Your task to perform on an android device: Open Chrome and go to the settings page Image 0: 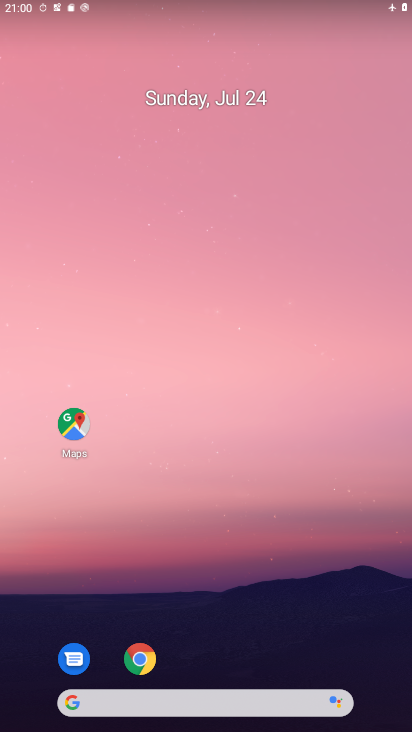
Step 0: drag from (221, 730) to (247, 97)
Your task to perform on an android device: Open Chrome and go to the settings page Image 1: 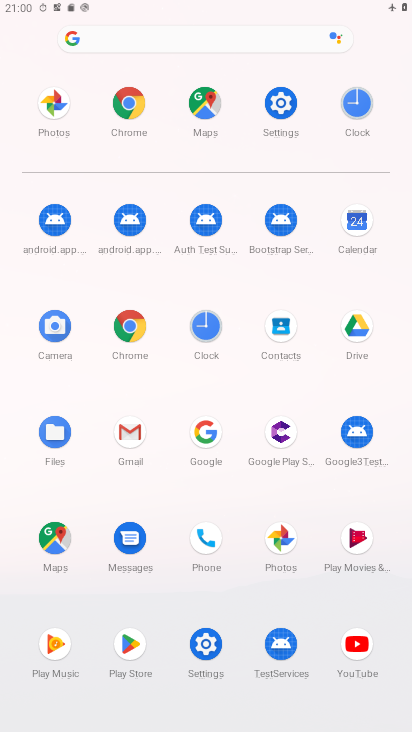
Step 1: click (129, 106)
Your task to perform on an android device: Open Chrome and go to the settings page Image 2: 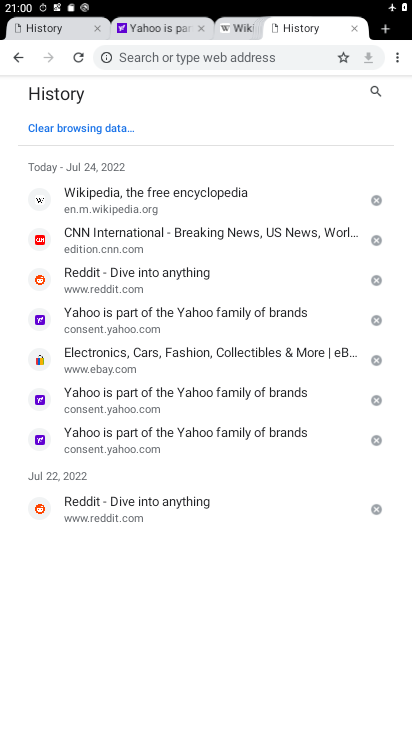
Step 2: click (396, 57)
Your task to perform on an android device: Open Chrome and go to the settings page Image 3: 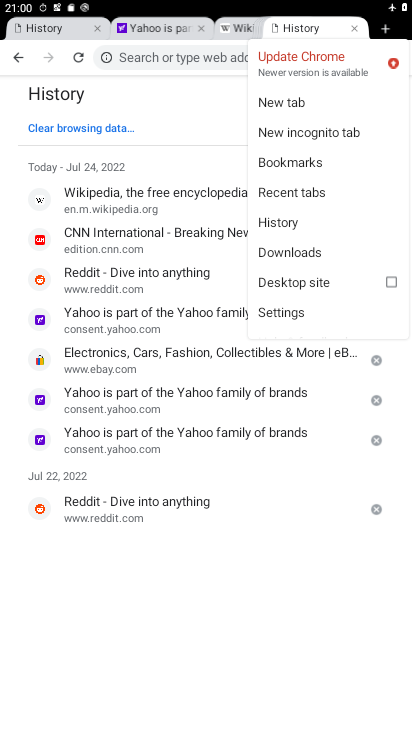
Step 3: click (283, 312)
Your task to perform on an android device: Open Chrome and go to the settings page Image 4: 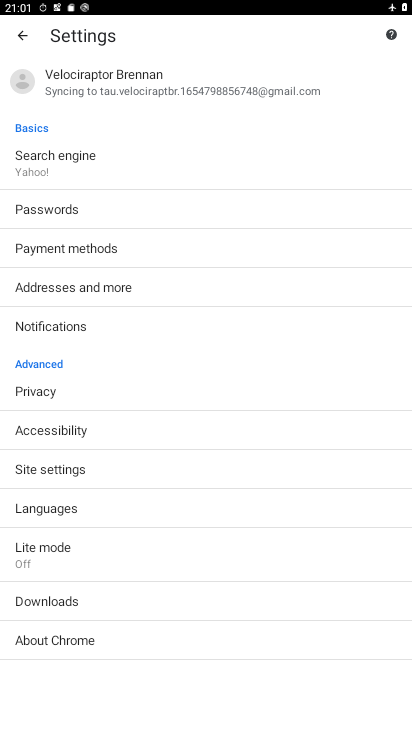
Step 4: task complete